Your task to perform on an android device: Open the stopwatch Image 0: 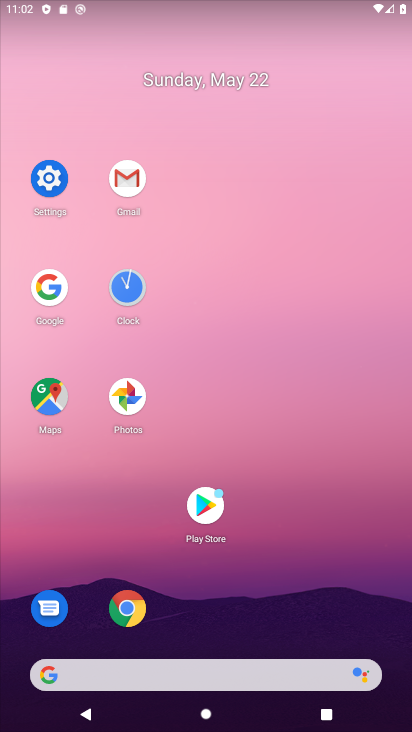
Step 0: click (123, 291)
Your task to perform on an android device: Open the stopwatch Image 1: 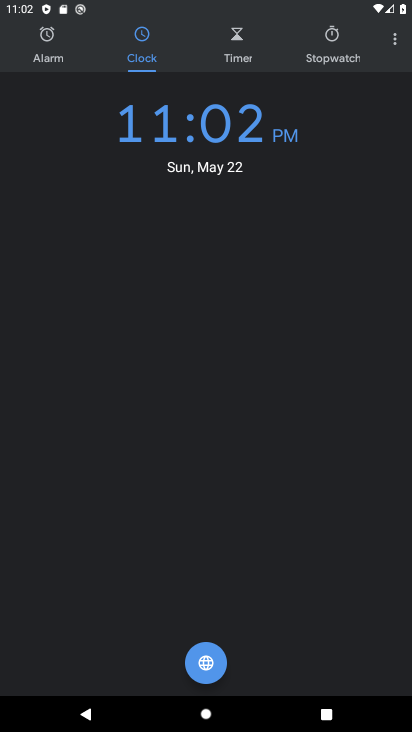
Step 1: click (332, 56)
Your task to perform on an android device: Open the stopwatch Image 2: 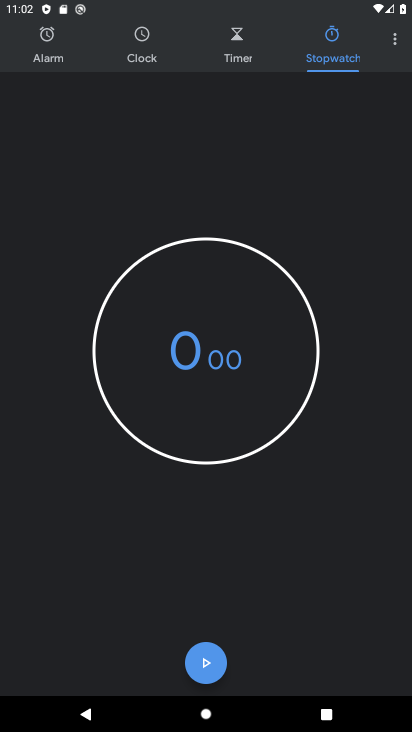
Step 2: task complete